Your task to perform on an android device: Go to Yahoo.com Image 0: 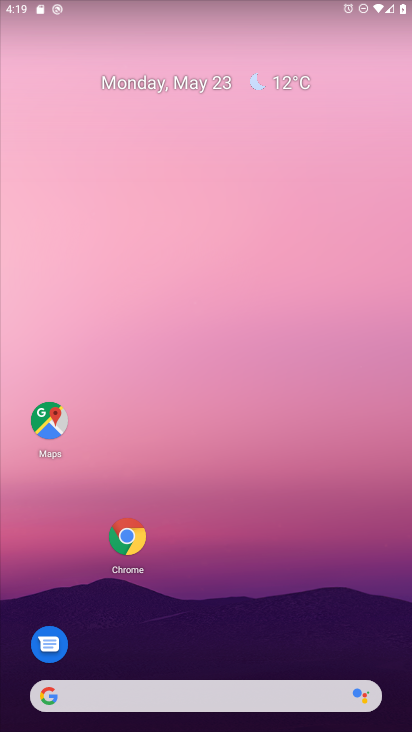
Step 0: click (132, 543)
Your task to perform on an android device: Go to Yahoo.com Image 1: 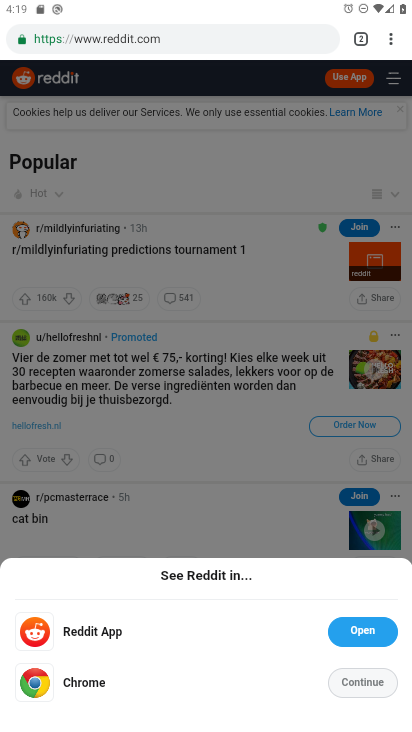
Step 1: click (159, 33)
Your task to perform on an android device: Go to Yahoo.com Image 2: 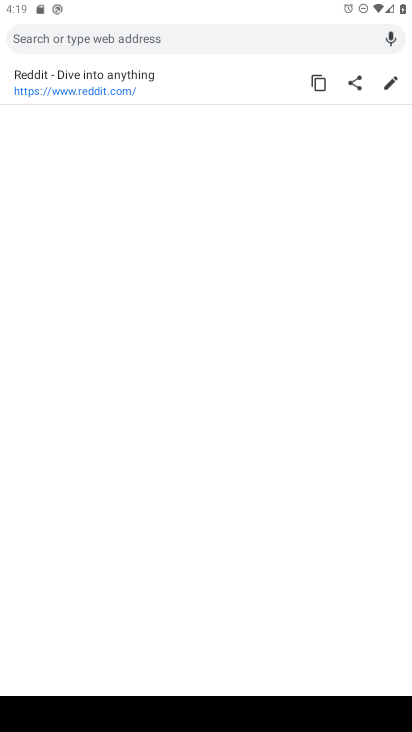
Step 2: type "yahoo.com"
Your task to perform on an android device: Go to Yahoo.com Image 3: 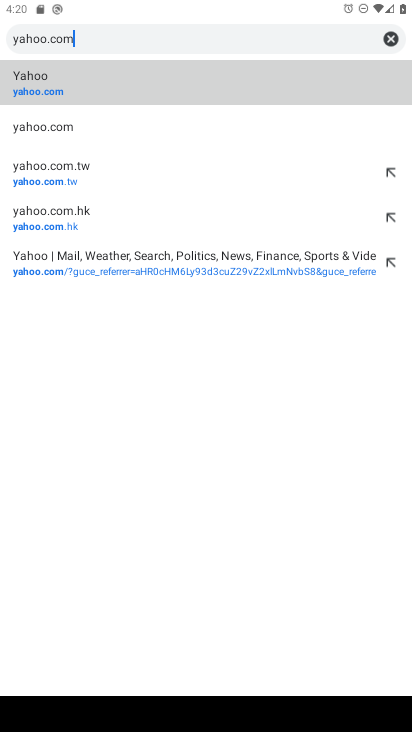
Step 3: click (28, 94)
Your task to perform on an android device: Go to Yahoo.com Image 4: 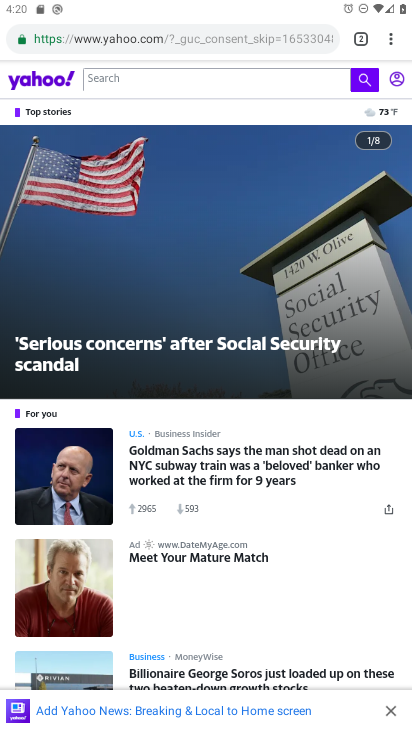
Step 4: task complete